Your task to perform on an android device: allow cookies in the chrome app Image 0: 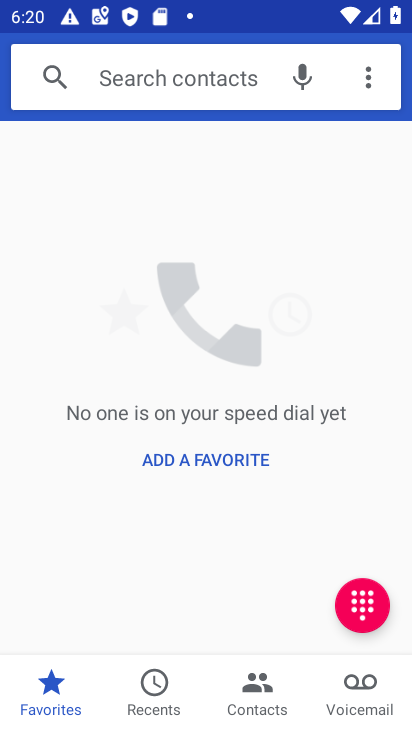
Step 0: press home button
Your task to perform on an android device: allow cookies in the chrome app Image 1: 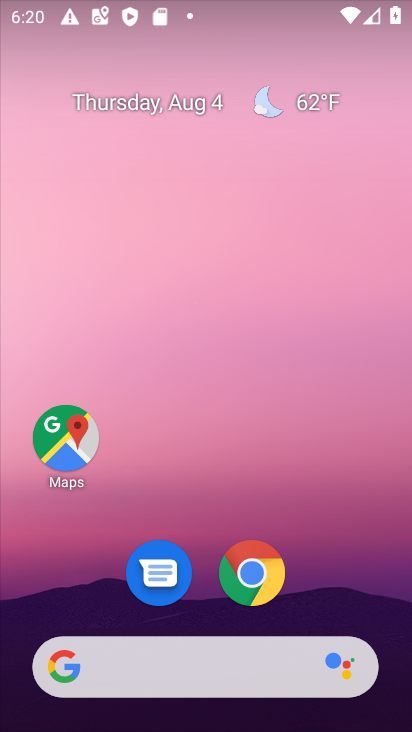
Step 1: drag from (210, 551) to (174, 79)
Your task to perform on an android device: allow cookies in the chrome app Image 2: 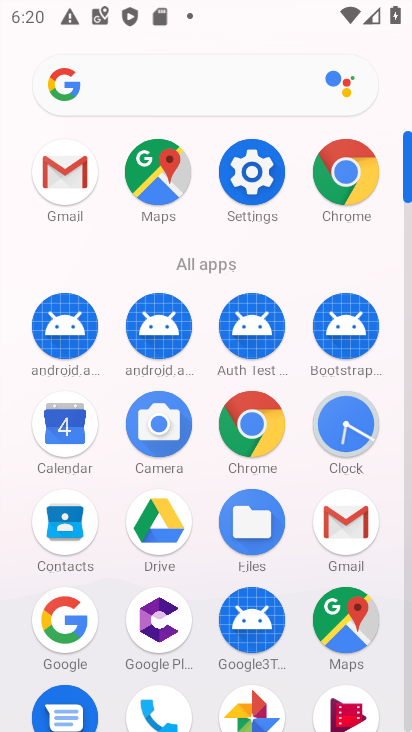
Step 2: click (349, 180)
Your task to perform on an android device: allow cookies in the chrome app Image 3: 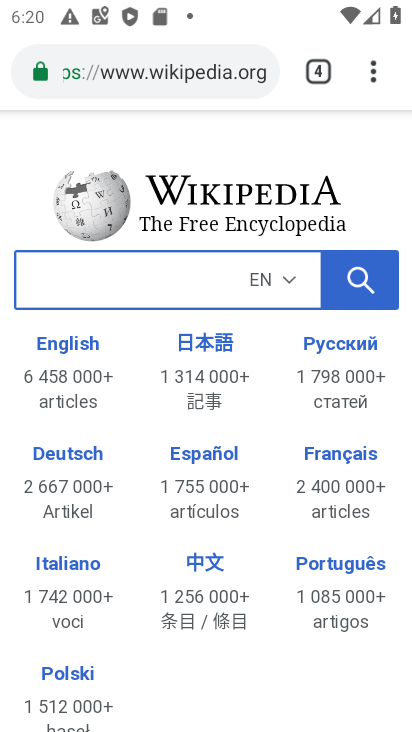
Step 3: drag from (377, 83) to (135, 566)
Your task to perform on an android device: allow cookies in the chrome app Image 4: 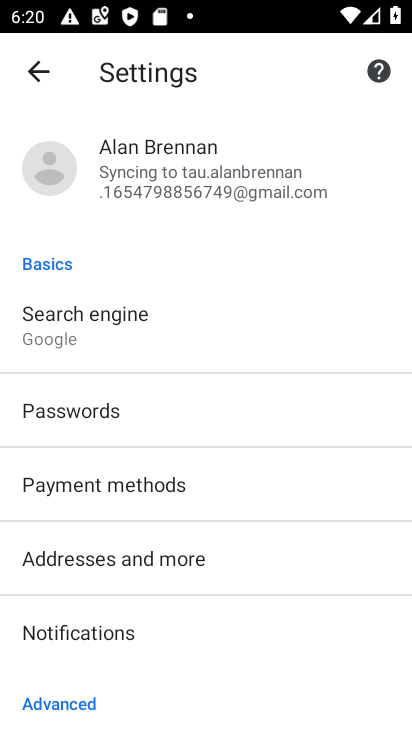
Step 4: drag from (255, 654) to (245, 191)
Your task to perform on an android device: allow cookies in the chrome app Image 5: 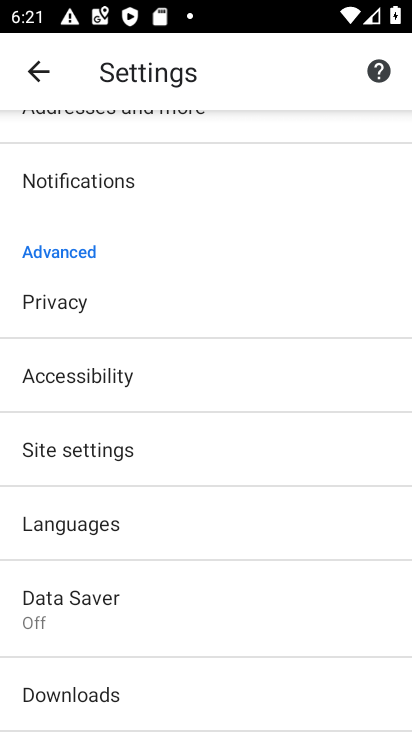
Step 5: click (86, 448)
Your task to perform on an android device: allow cookies in the chrome app Image 6: 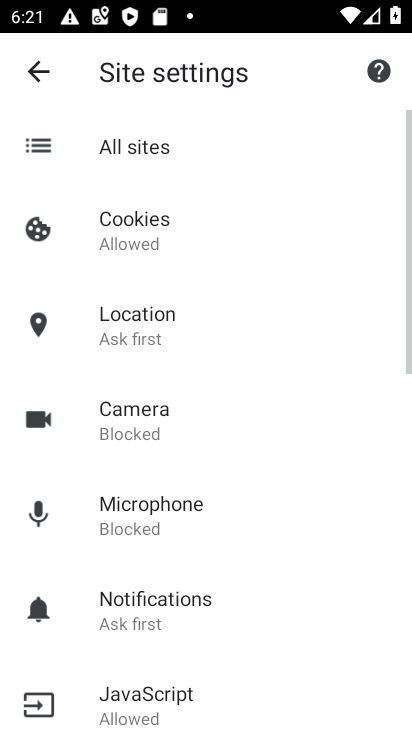
Step 6: click (155, 235)
Your task to perform on an android device: allow cookies in the chrome app Image 7: 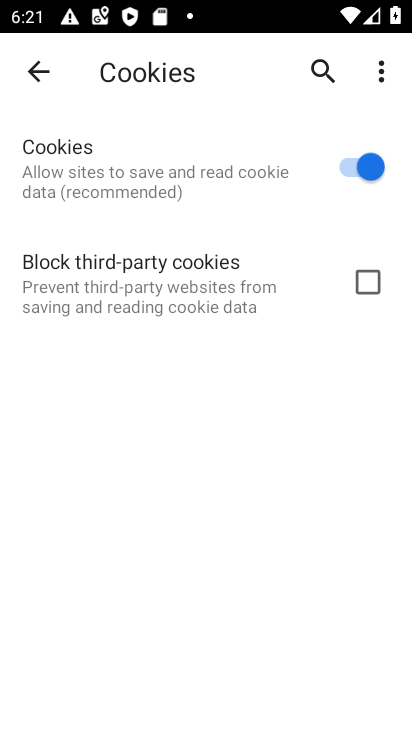
Step 7: task complete